Your task to perform on an android device: set the timer Image 0: 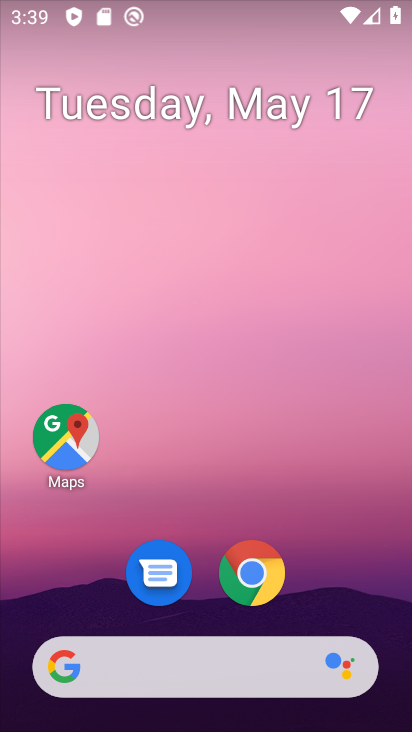
Step 0: drag from (353, 575) to (287, 189)
Your task to perform on an android device: set the timer Image 1: 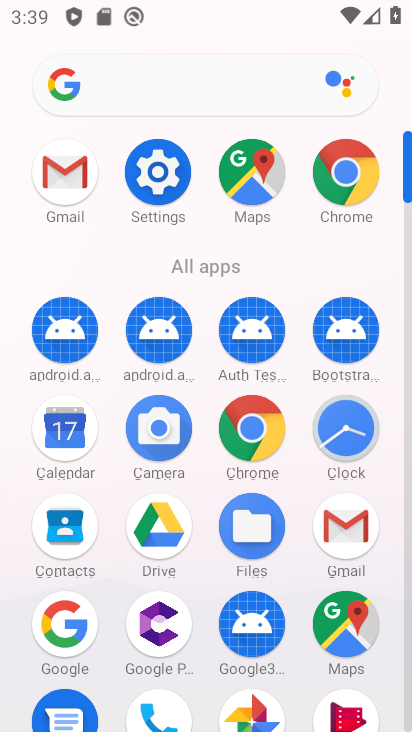
Step 1: click (348, 431)
Your task to perform on an android device: set the timer Image 2: 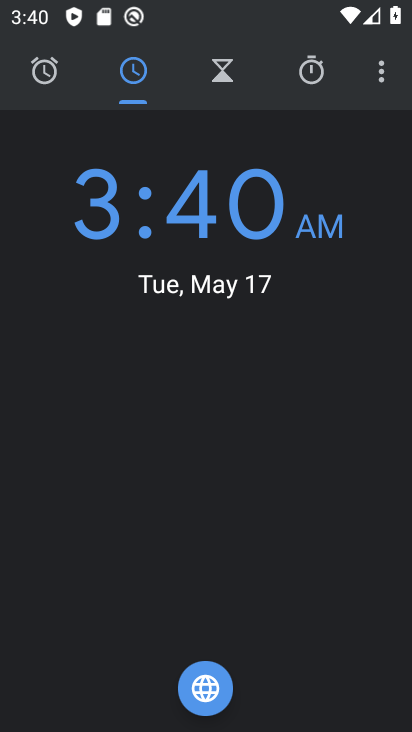
Step 2: click (225, 59)
Your task to perform on an android device: set the timer Image 3: 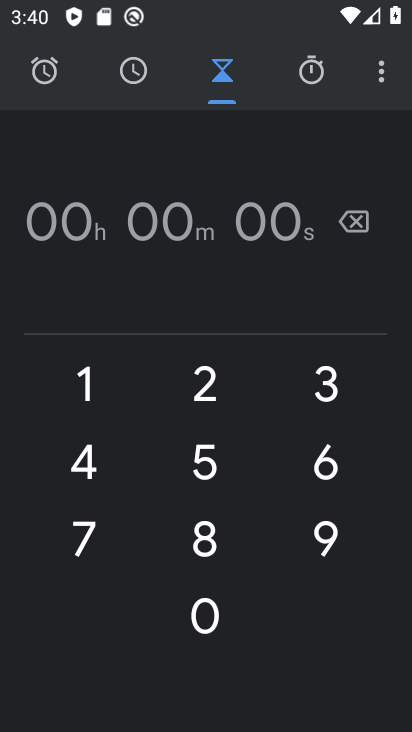
Step 3: type "100000"
Your task to perform on an android device: set the timer Image 4: 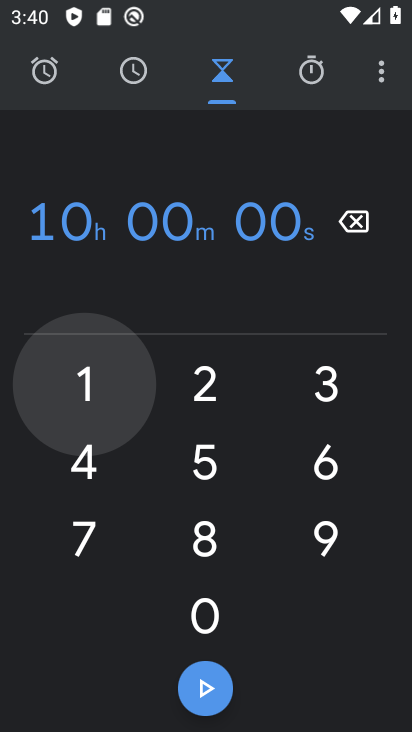
Step 4: click (207, 685)
Your task to perform on an android device: set the timer Image 5: 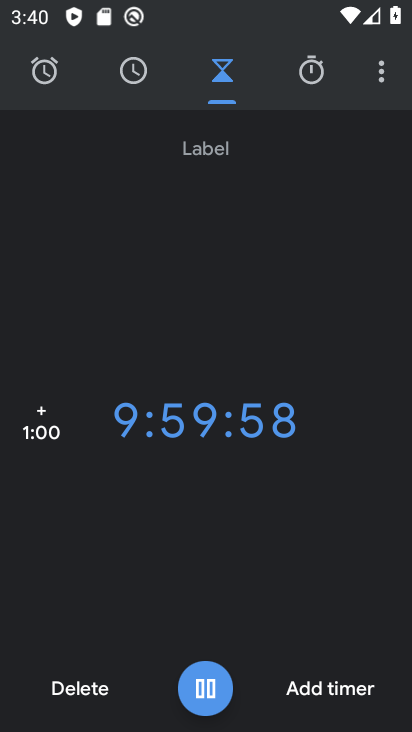
Step 5: task complete